Your task to perform on an android device: Open calendar and show me the third week of next month Image 0: 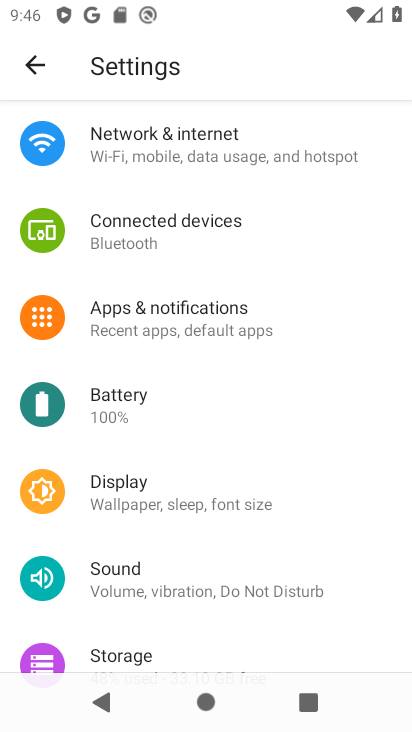
Step 0: drag from (158, 590) to (144, 318)
Your task to perform on an android device: Open calendar and show me the third week of next month Image 1: 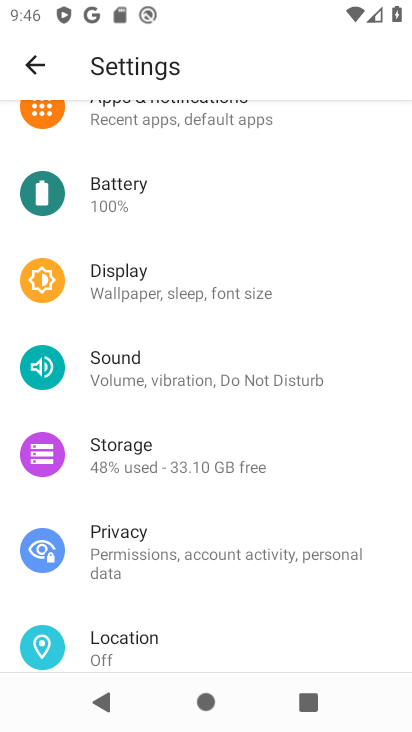
Step 1: drag from (178, 587) to (192, 391)
Your task to perform on an android device: Open calendar and show me the third week of next month Image 2: 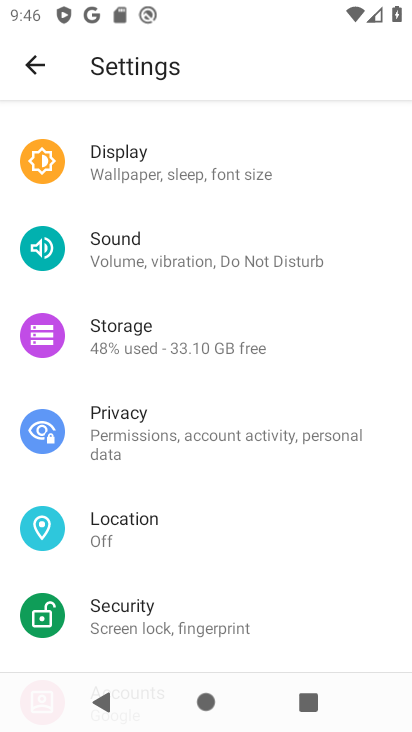
Step 2: press home button
Your task to perform on an android device: Open calendar and show me the third week of next month Image 3: 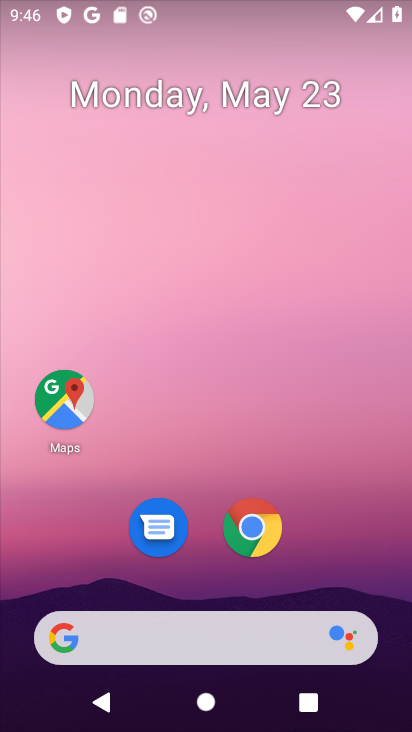
Step 3: drag from (396, 604) to (336, 251)
Your task to perform on an android device: Open calendar and show me the third week of next month Image 4: 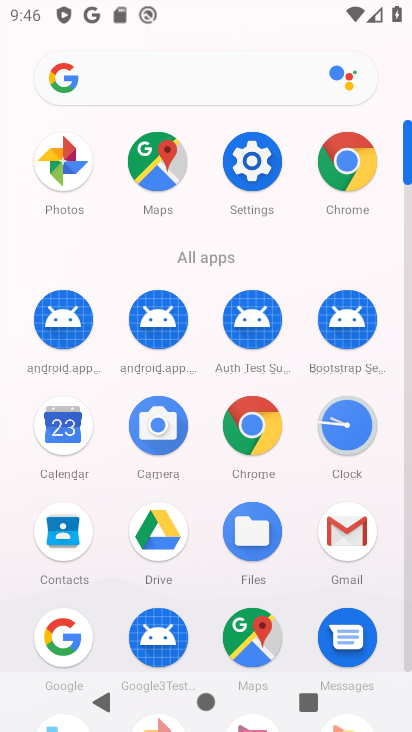
Step 4: click (83, 429)
Your task to perform on an android device: Open calendar and show me the third week of next month Image 5: 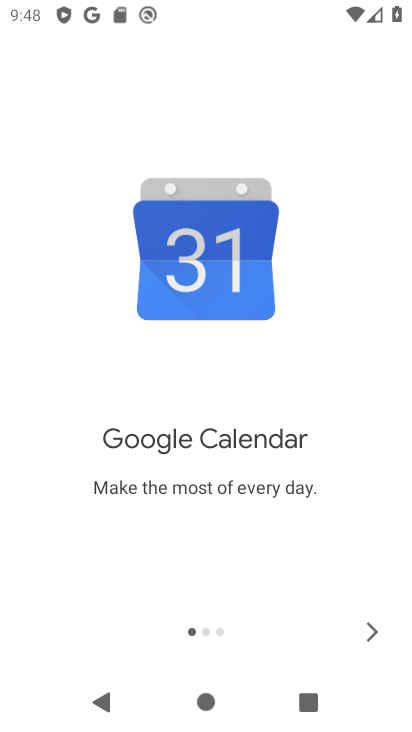
Step 5: click (378, 638)
Your task to perform on an android device: Open calendar and show me the third week of next month Image 6: 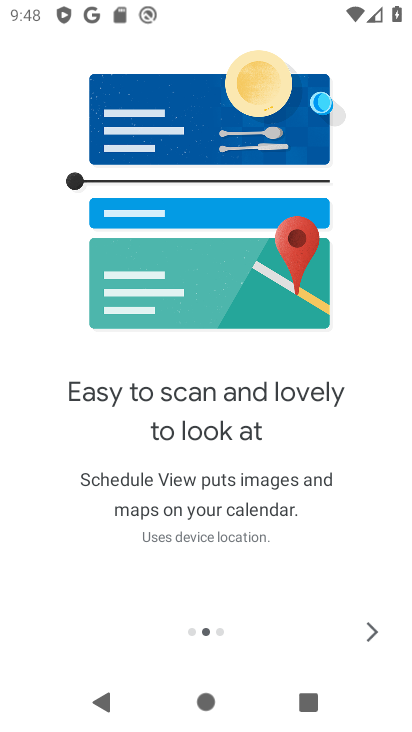
Step 6: click (378, 638)
Your task to perform on an android device: Open calendar and show me the third week of next month Image 7: 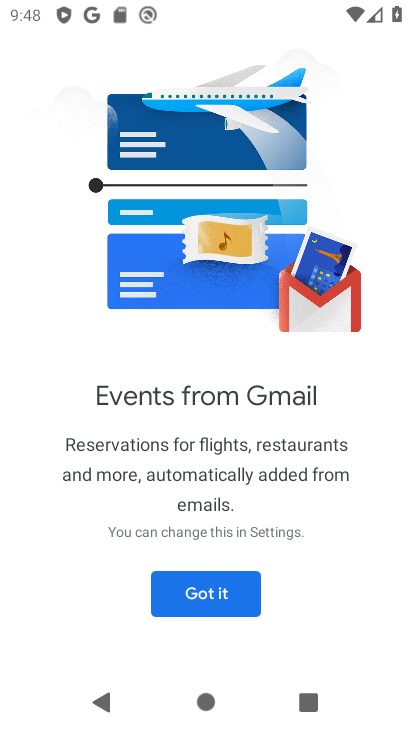
Step 7: click (190, 597)
Your task to perform on an android device: Open calendar and show me the third week of next month Image 8: 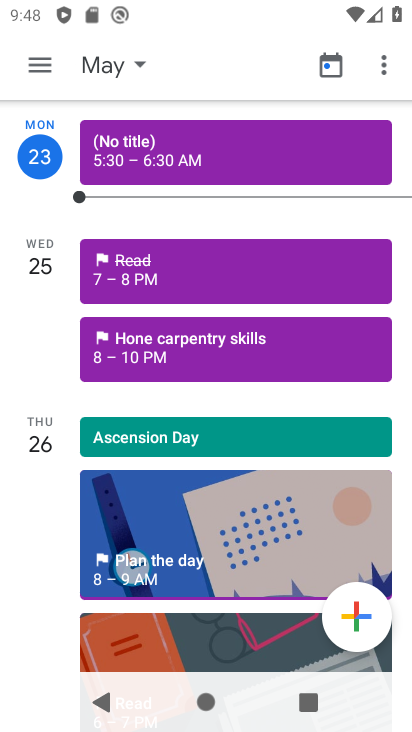
Step 8: click (143, 57)
Your task to perform on an android device: Open calendar and show me the third week of next month Image 9: 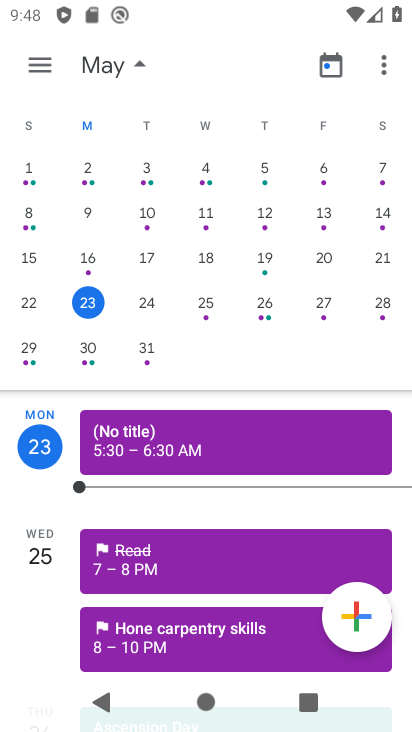
Step 9: drag from (275, 235) to (3, 235)
Your task to perform on an android device: Open calendar and show me the third week of next month Image 10: 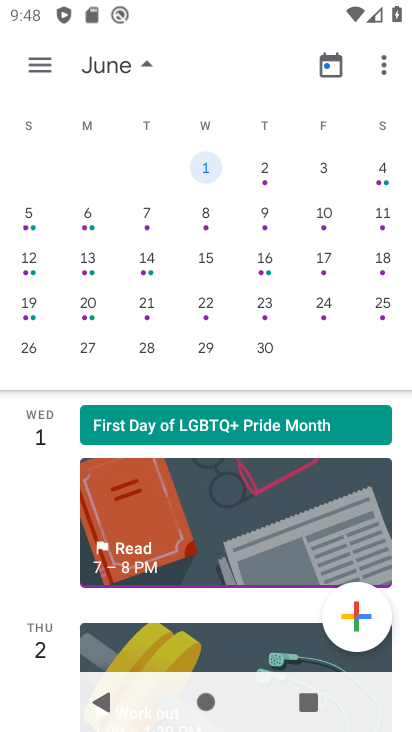
Step 10: click (84, 307)
Your task to perform on an android device: Open calendar and show me the third week of next month Image 11: 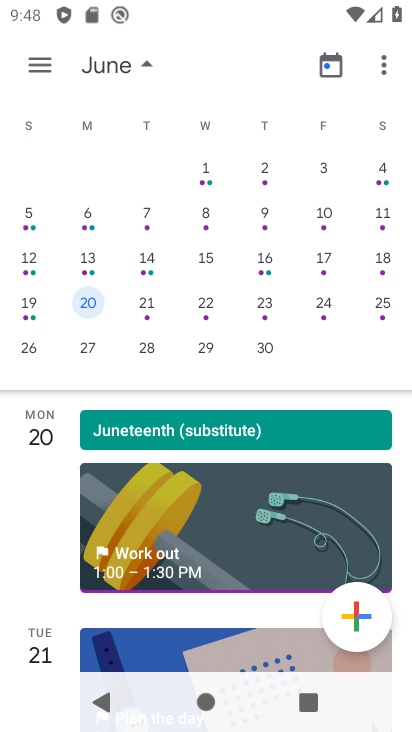
Step 11: click (40, 63)
Your task to perform on an android device: Open calendar and show me the third week of next month Image 12: 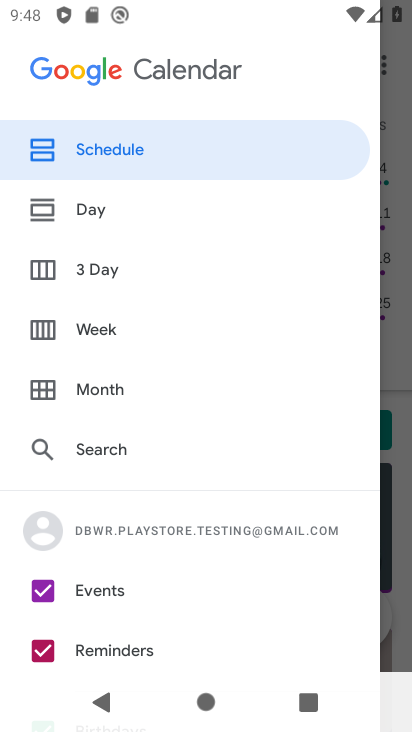
Step 12: click (208, 311)
Your task to perform on an android device: Open calendar and show me the third week of next month Image 13: 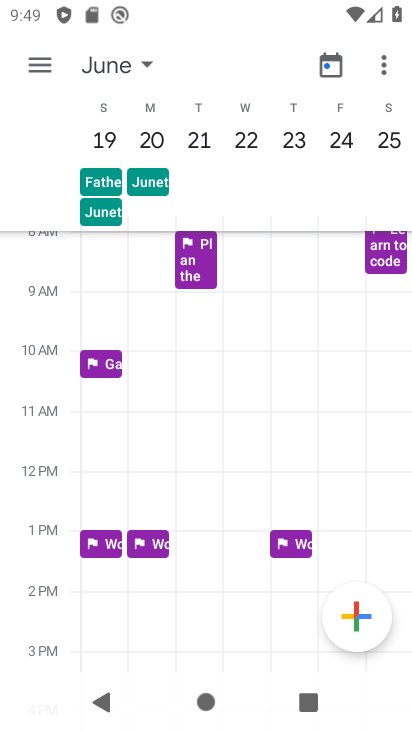
Step 13: task complete